Your task to perform on an android device: Go to wifi settings Image 0: 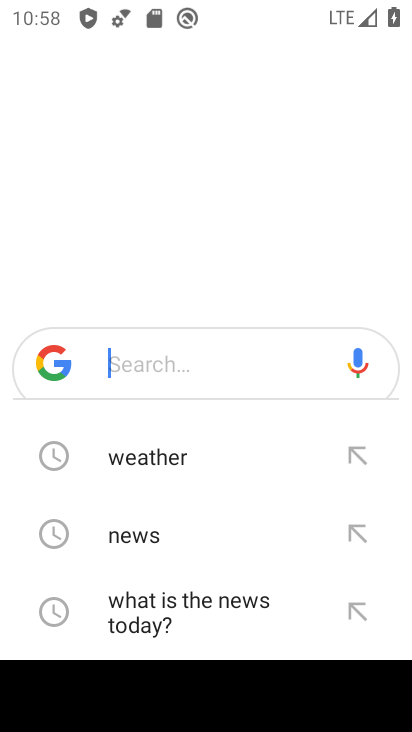
Step 0: press home button
Your task to perform on an android device: Go to wifi settings Image 1: 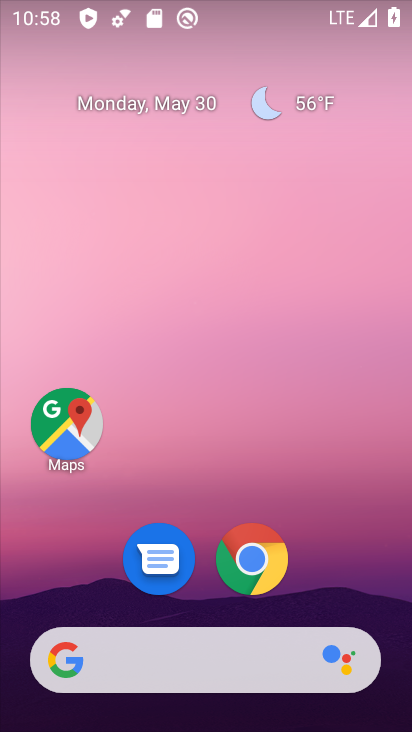
Step 1: drag from (357, 571) to (291, 110)
Your task to perform on an android device: Go to wifi settings Image 2: 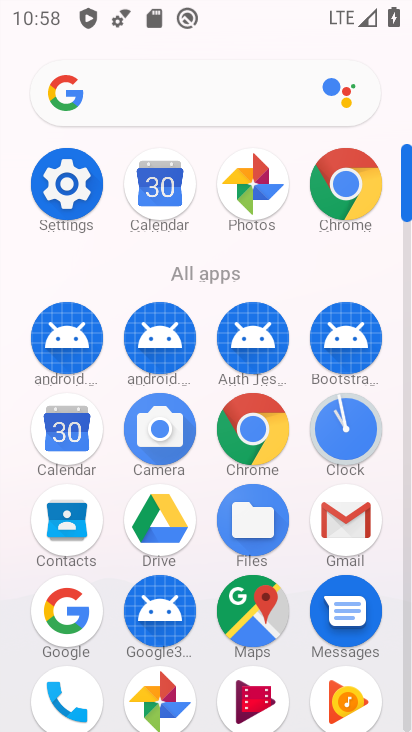
Step 2: click (73, 177)
Your task to perform on an android device: Go to wifi settings Image 3: 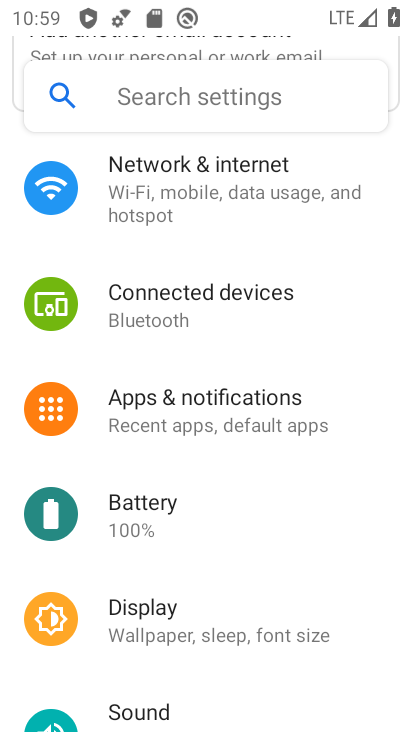
Step 3: click (185, 164)
Your task to perform on an android device: Go to wifi settings Image 4: 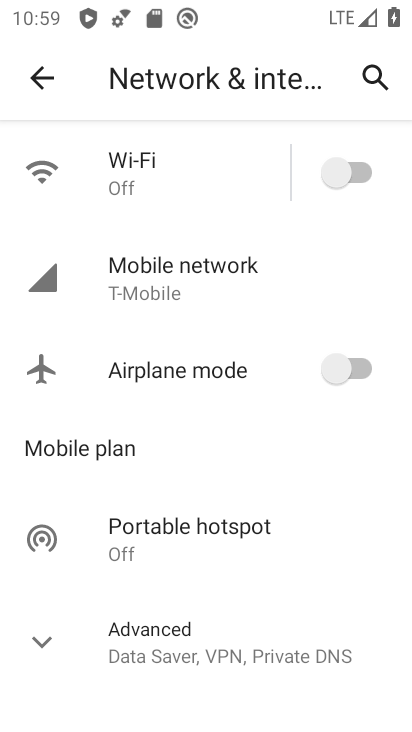
Step 4: click (141, 173)
Your task to perform on an android device: Go to wifi settings Image 5: 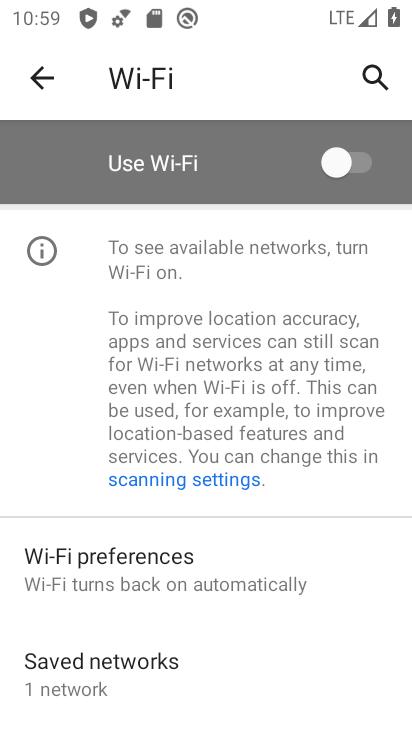
Step 5: task complete